Your task to perform on an android device: Find coffee shops on Maps Image 0: 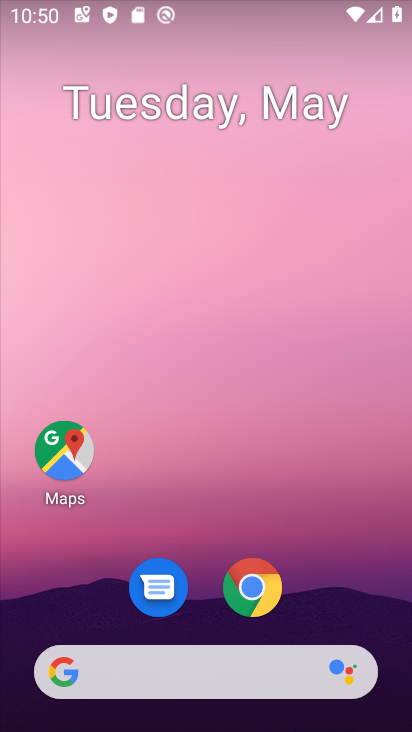
Step 0: drag from (342, 546) to (271, 45)
Your task to perform on an android device: Find coffee shops on Maps Image 1: 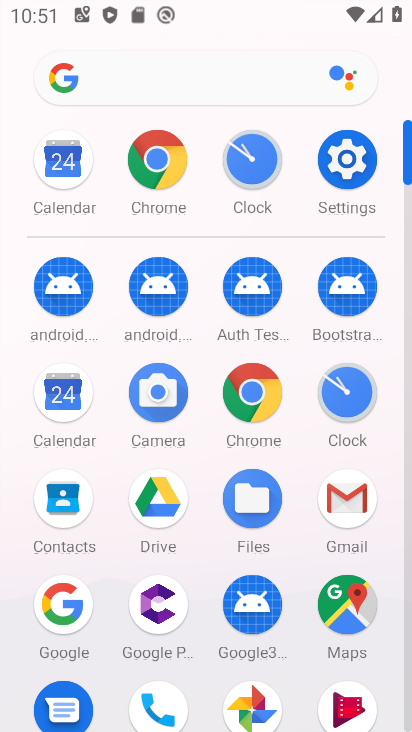
Step 1: click (339, 607)
Your task to perform on an android device: Find coffee shops on Maps Image 2: 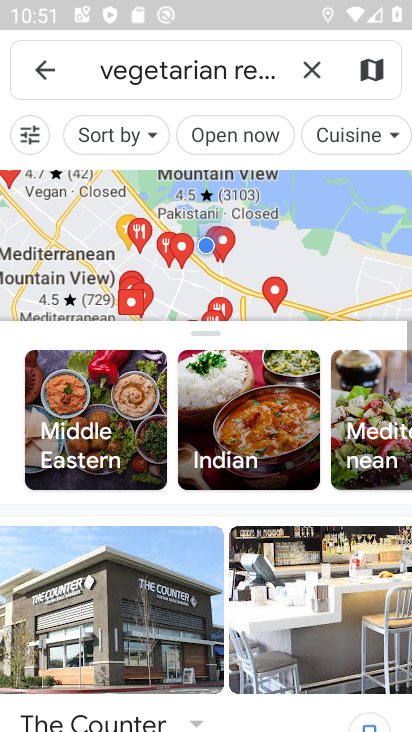
Step 2: click (31, 62)
Your task to perform on an android device: Find coffee shops on Maps Image 3: 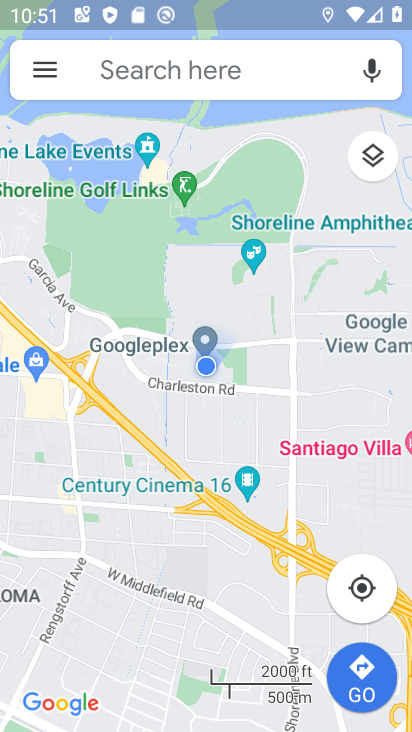
Step 3: click (260, 61)
Your task to perform on an android device: Find coffee shops on Maps Image 4: 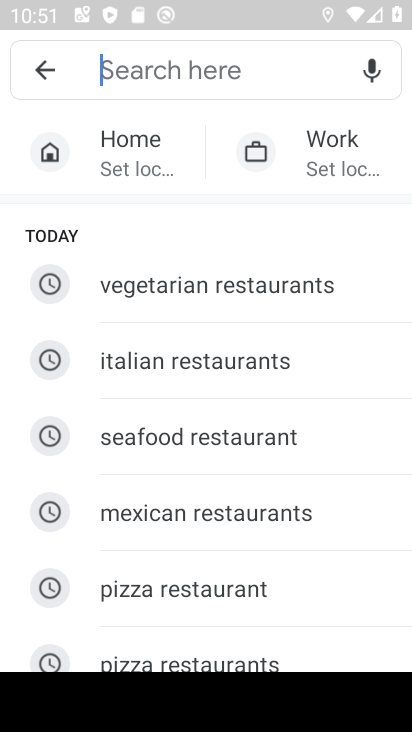
Step 4: click (131, 670)
Your task to perform on an android device: Find coffee shops on Maps Image 5: 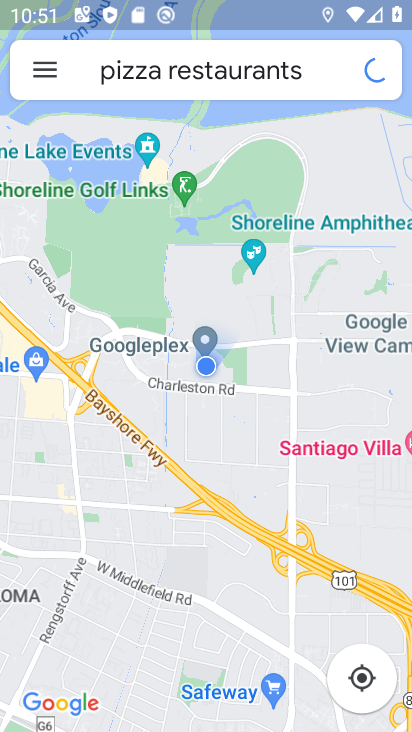
Step 5: type " coffee shops"
Your task to perform on an android device: Find coffee shops on Maps Image 6: 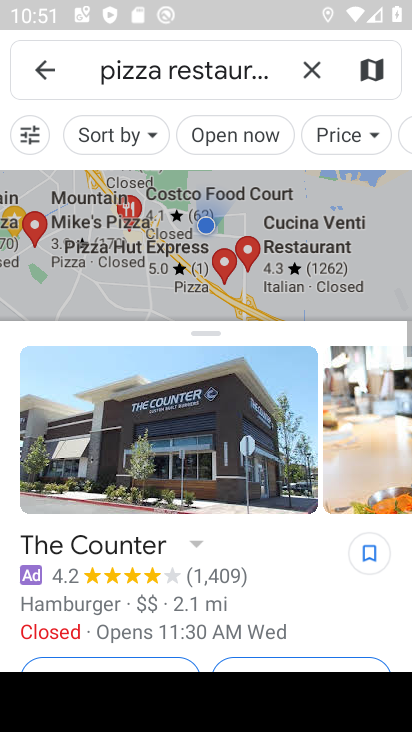
Step 6: type ""
Your task to perform on an android device: Find coffee shops on Maps Image 7: 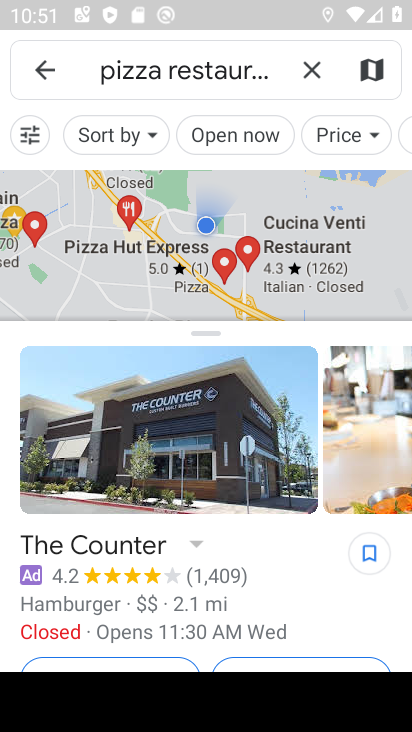
Step 7: click (308, 67)
Your task to perform on an android device: Find coffee shops on Maps Image 8: 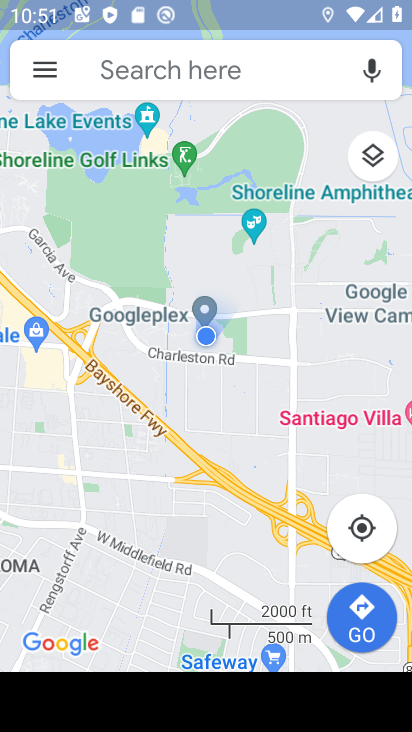
Step 8: click (245, 65)
Your task to perform on an android device: Find coffee shops on Maps Image 9: 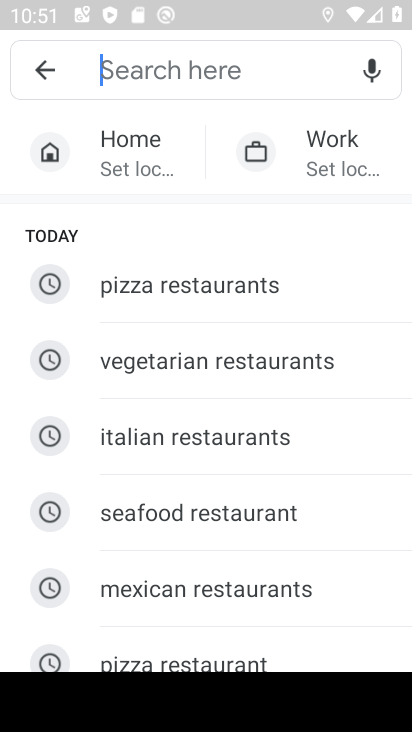
Step 9: type " coffee shops"
Your task to perform on an android device: Find coffee shops on Maps Image 10: 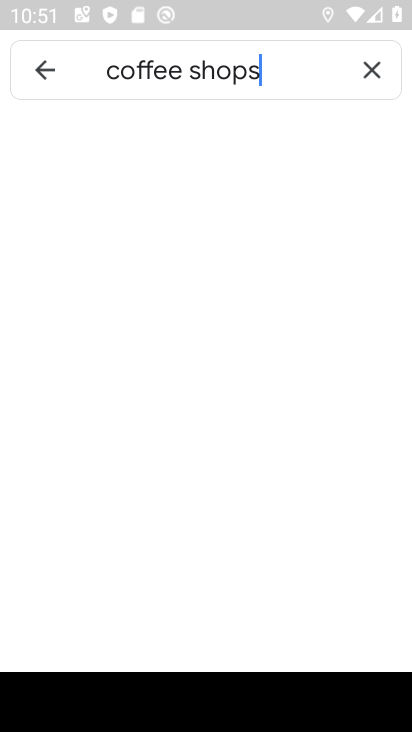
Step 10: type ""
Your task to perform on an android device: Find coffee shops on Maps Image 11: 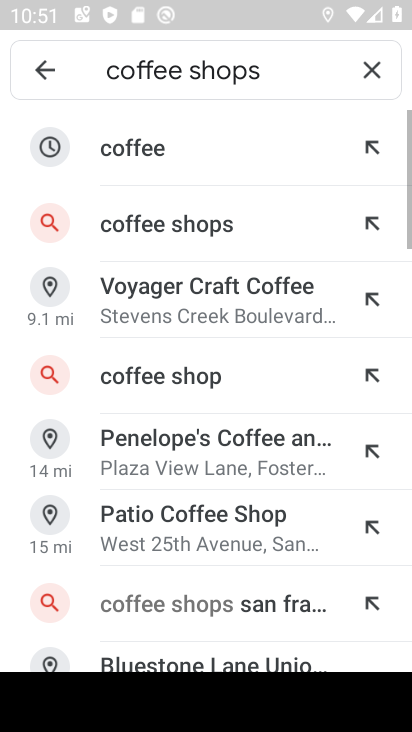
Step 11: click (181, 144)
Your task to perform on an android device: Find coffee shops on Maps Image 12: 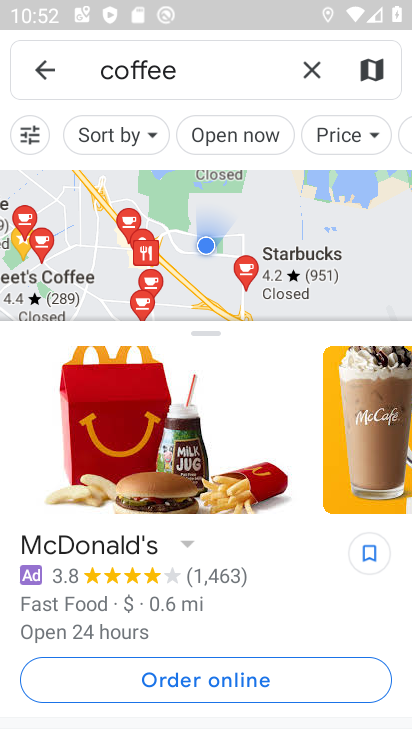
Step 12: task complete